Your task to perform on an android device: Show me the alarms in the clock app Image 0: 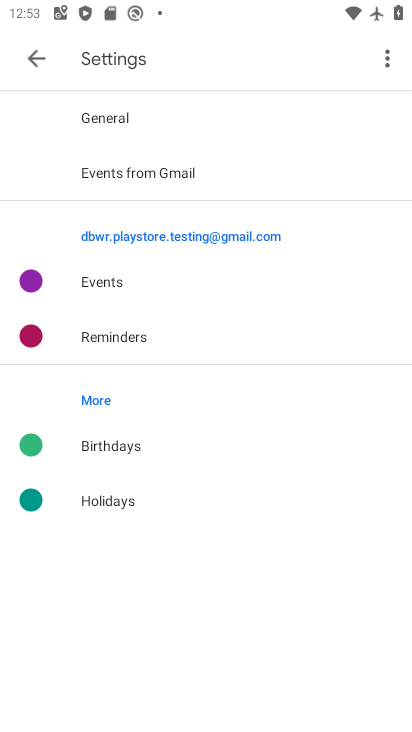
Step 0: press home button
Your task to perform on an android device: Show me the alarms in the clock app Image 1: 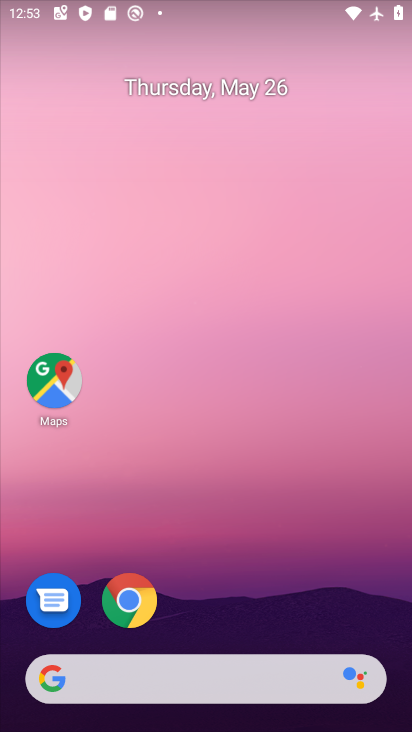
Step 1: drag from (281, 242) to (267, 131)
Your task to perform on an android device: Show me the alarms in the clock app Image 2: 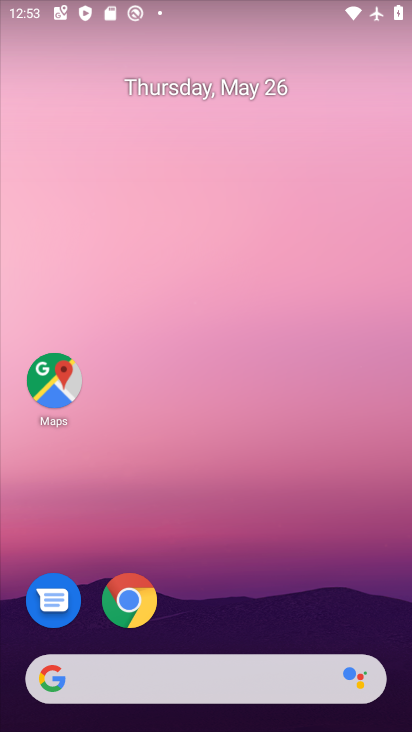
Step 2: drag from (285, 424) to (269, 77)
Your task to perform on an android device: Show me the alarms in the clock app Image 3: 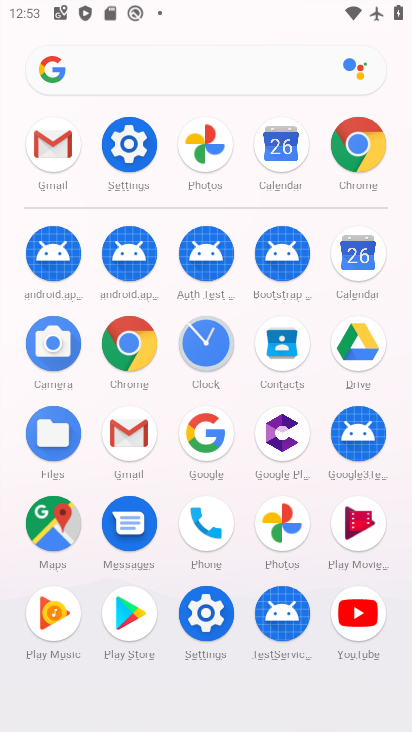
Step 3: click (218, 345)
Your task to perform on an android device: Show me the alarms in the clock app Image 4: 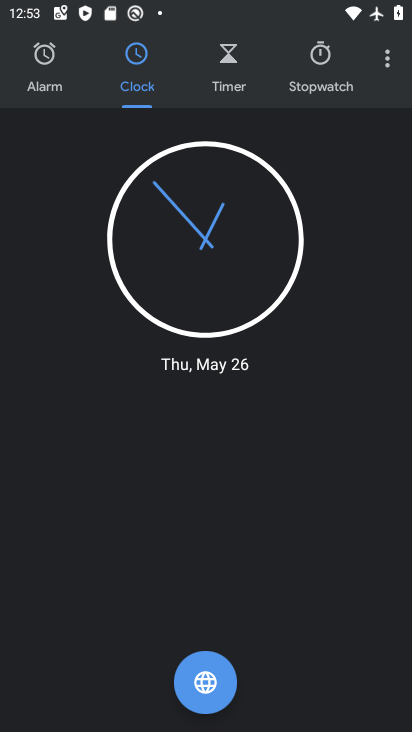
Step 4: click (385, 60)
Your task to perform on an android device: Show me the alarms in the clock app Image 5: 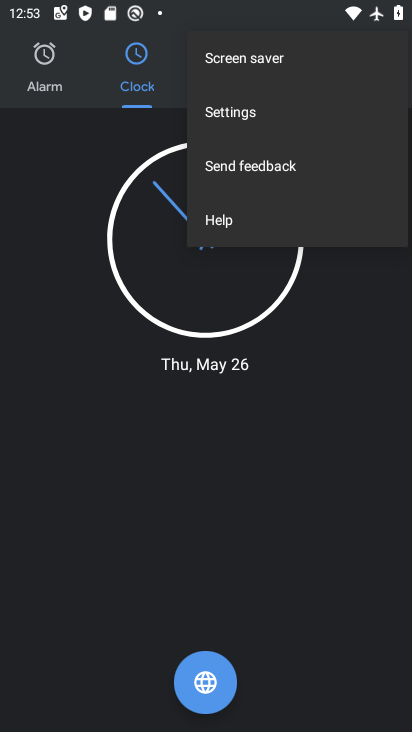
Step 5: click (52, 69)
Your task to perform on an android device: Show me the alarms in the clock app Image 6: 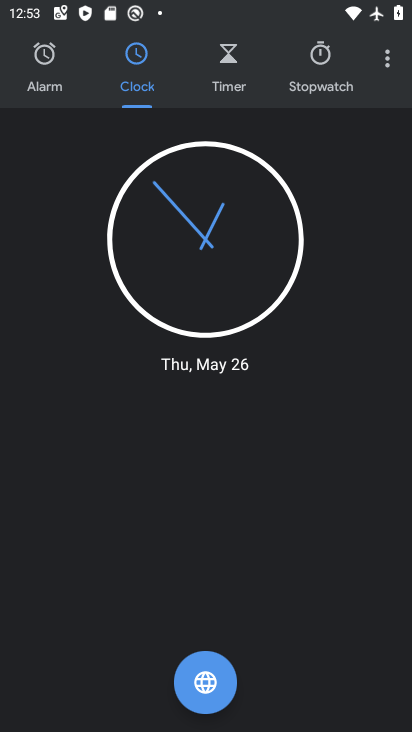
Step 6: click (52, 69)
Your task to perform on an android device: Show me the alarms in the clock app Image 7: 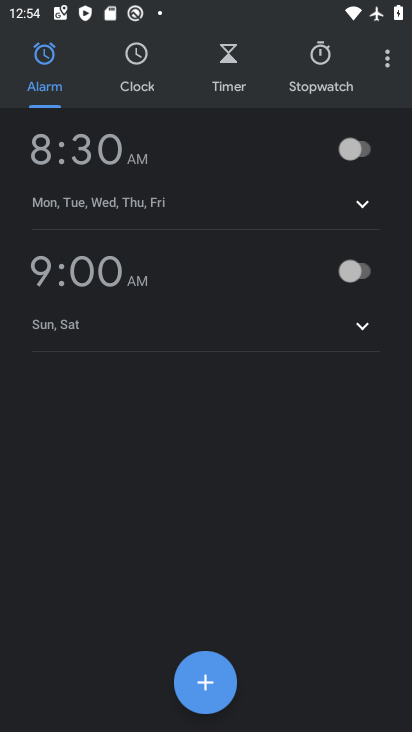
Step 7: task complete